Your task to perform on an android device: Turn on the flashlight Image 0: 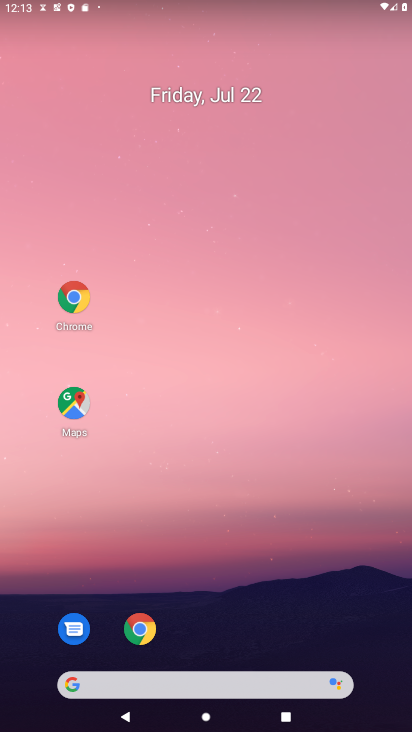
Step 0: click (236, 294)
Your task to perform on an android device: Turn on the flashlight Image 1: 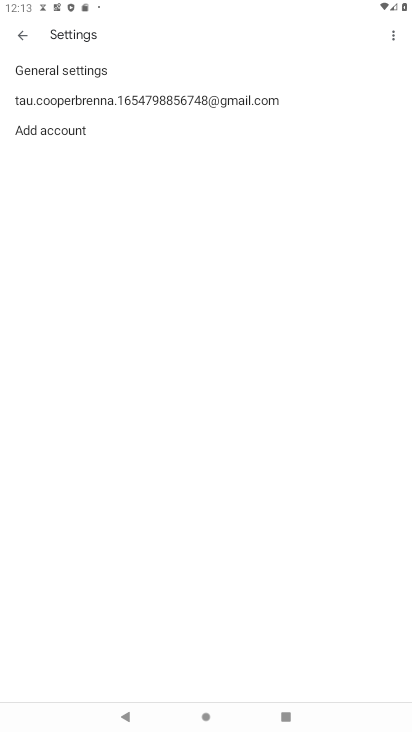
Step 1: task complete